Your task to perform on an android device: turn off notifications settings in the gmail app Image 0: 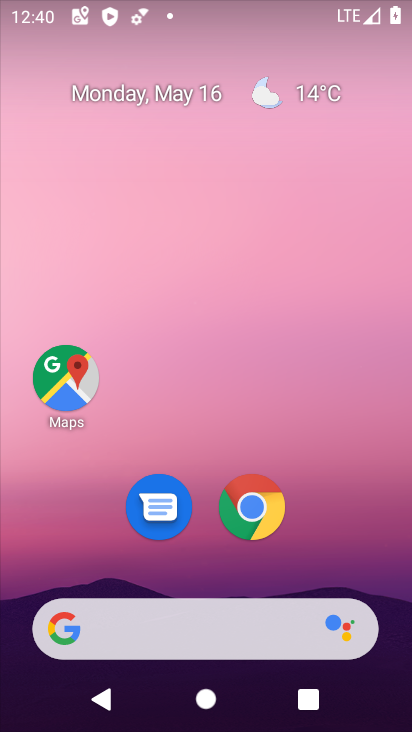
Step 0: drag from (310, 576) to (215, 47)
Your task to perform on an android device: turn off notifications settings in the gmail app Image 1: 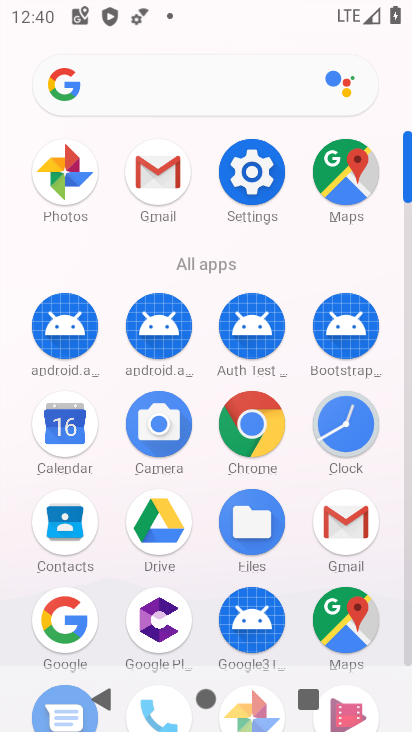
Step 1: click (357, 513)
Your task to perform on an android device: turn off notifications settings in the gmail app Image 2: 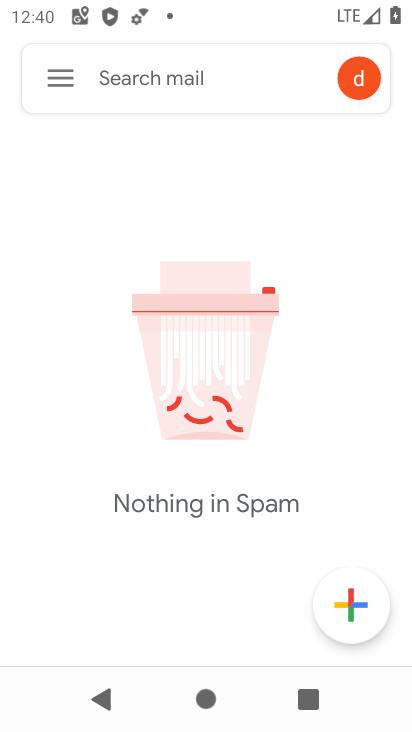
Step 2: click (58, 79)
Your task to perform on an android device: turn off notifications settings in the gmail app Image 3: 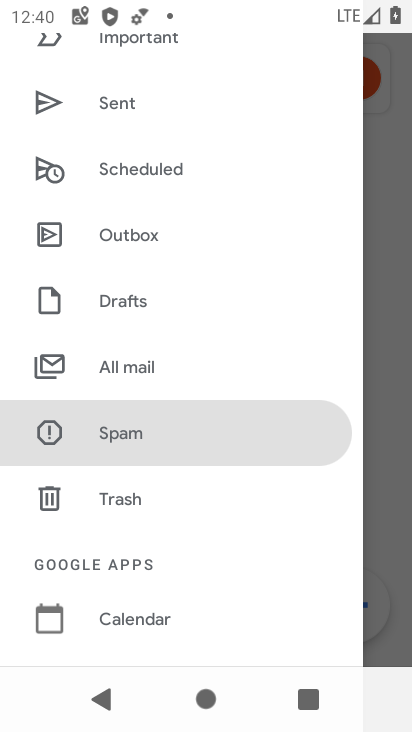
Step 3: drag from (172, 597) to (158, 98)
Your task to perform on an android device: turn off notifications settings in the gmail app Image 4: 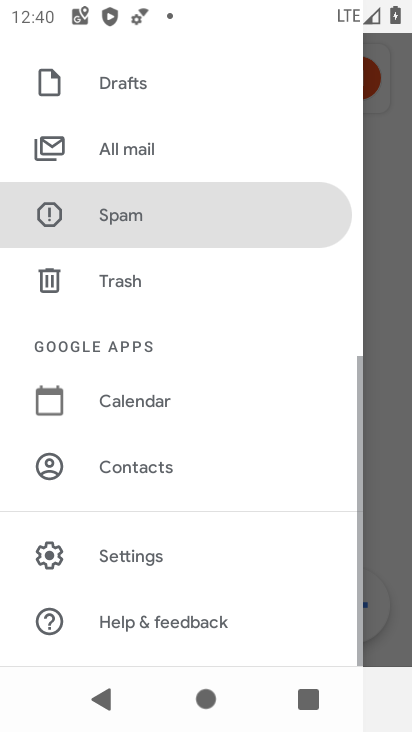
Step 4: click (147, 525)
Your task to perform on an android device: turn off notifications settings in the gmail app Image 5: 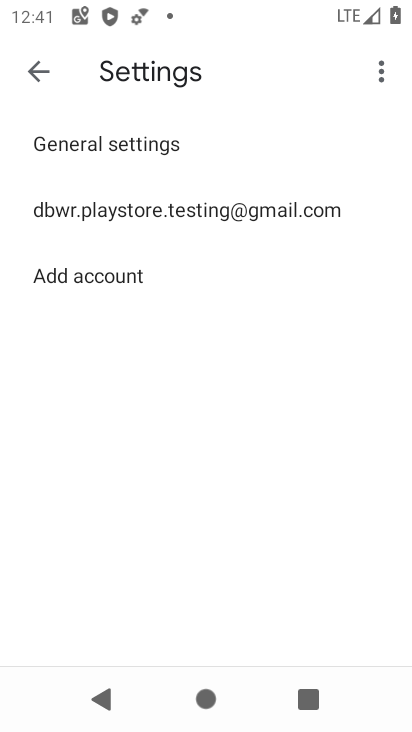
Step 5: click (140, 215)
Your task to perform on an android device: turn off notifications settings in the gmail app Image 6: 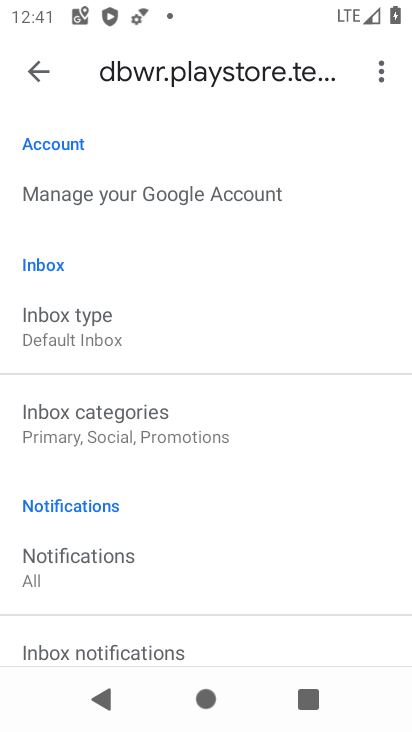
Step 6: click (164, 569)
Your task to perform on an android device: turn off notifications settings in the gmail app Image 7: 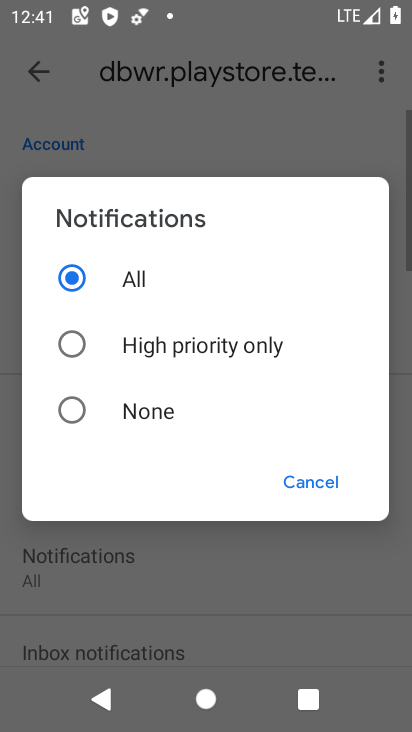
Step 7: click (128, 412)
Your task to perform on an android device: turn off notifications settings in the gmail app Image 8: 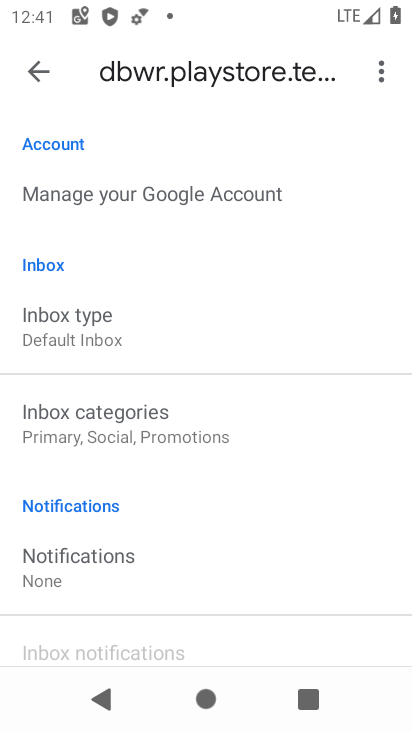
Step 8: task complete